Your task to perform on an android device: toggle data saver in the chrome app Image 0: 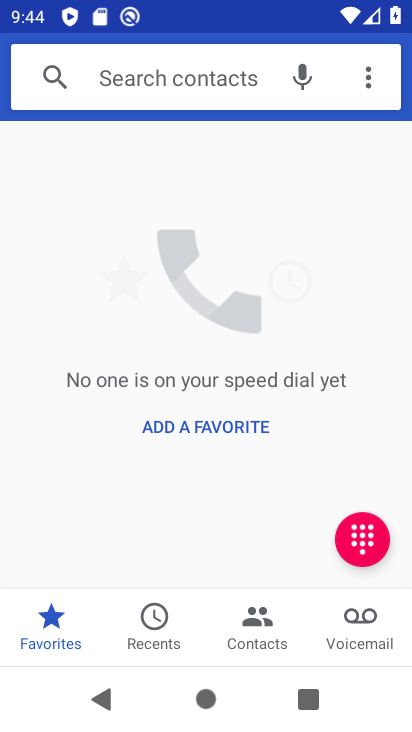
Step 0: press home button
Your task to perform on an android device: toggle data saver in the chrome app Image 1: 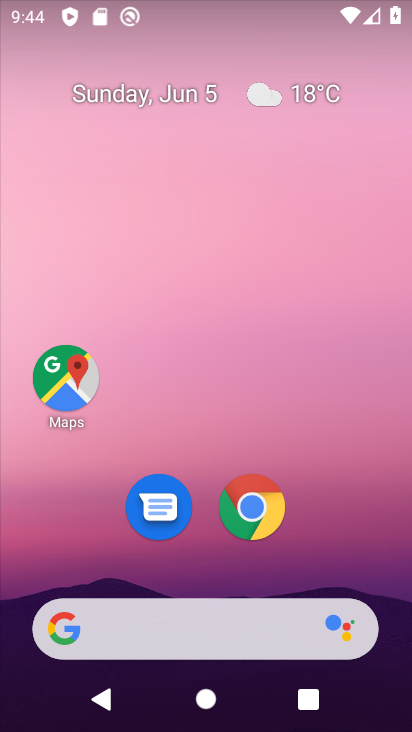
Step 1: click (251, 486)
Your task to perform on an android device: toggle data saver in the chrome app Image 2: 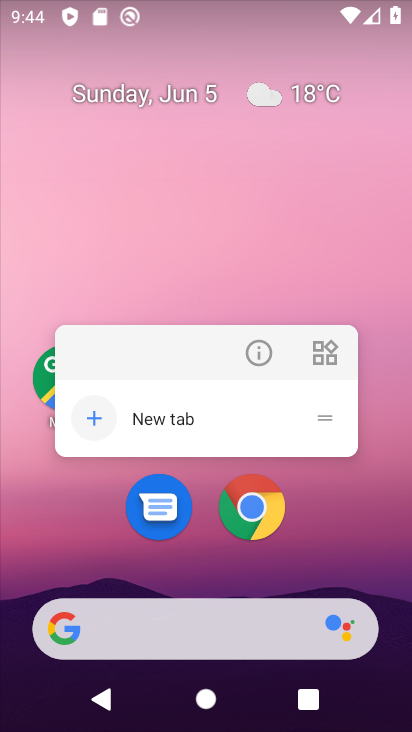
Step 2: click (255, 510)
Your task to perform on an android device: toggle data saver in the chrome app Image 3: 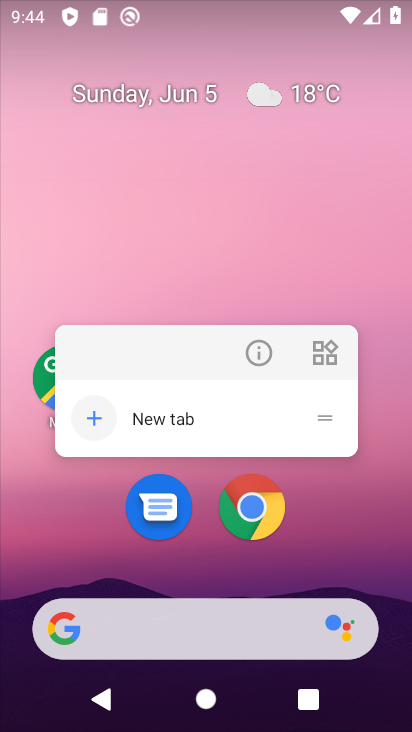
Step 3: click (253, 507)
Your task to perform on an android device: toggle data saver in the chrome app Image 4: 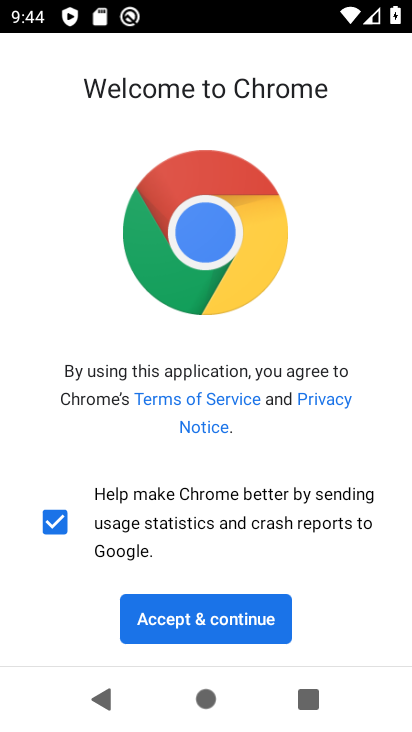
Step 4: click (167, 622)
Your task to perform on an android device: toggle data saver in the chrome app Image 5: 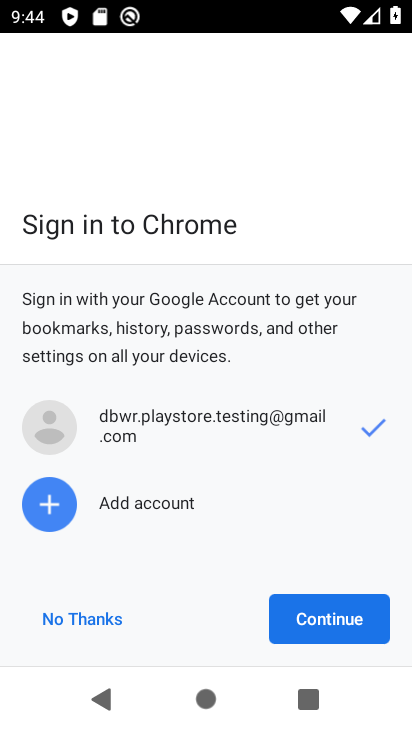
Step 5: click (331, 626)
Your task to perform on an android device: toggle data saver in the chrome app Image 6: 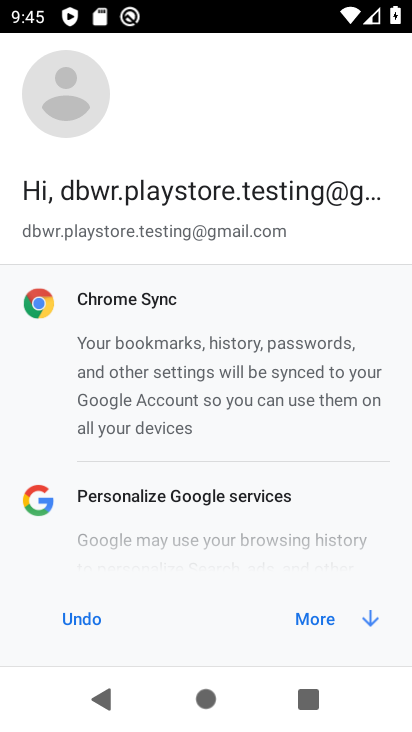
Step 6: click (325, 609)
Your task to perform on an android device: toggle data saver in the chrome app Image 7: 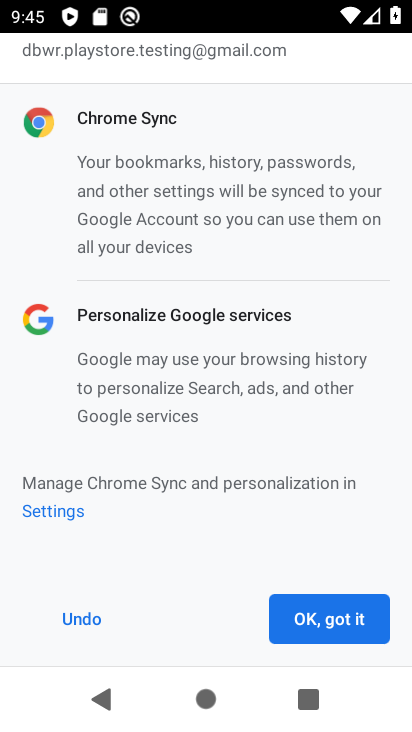
Step 7: click (325, 613)
Your task to perform on an android device: toggle data saver in the chrome app Image 8: 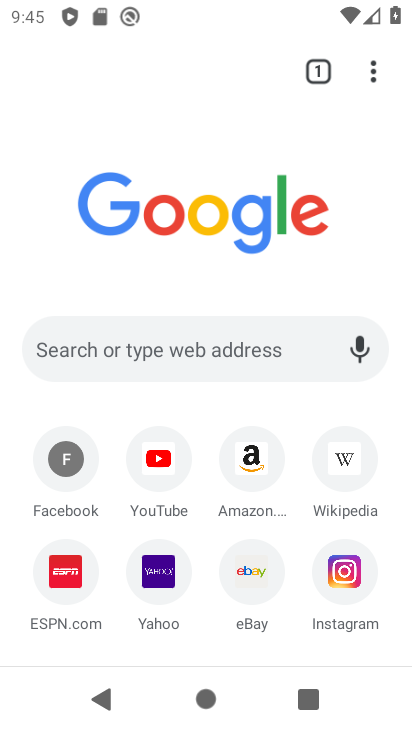
Step 8: click (379, 73)
Your task to perform on an android device: toggle data saver in the chrome app Image 9: 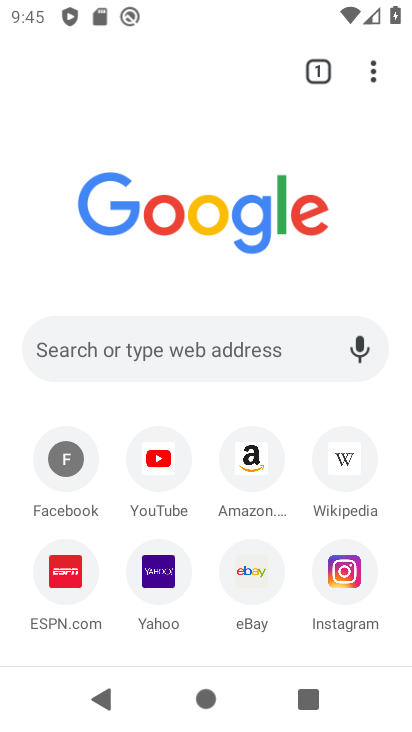
Step 9: click (367, 74)
Your task to perform on an android device: toggle data saver in the chrome app Image 10: 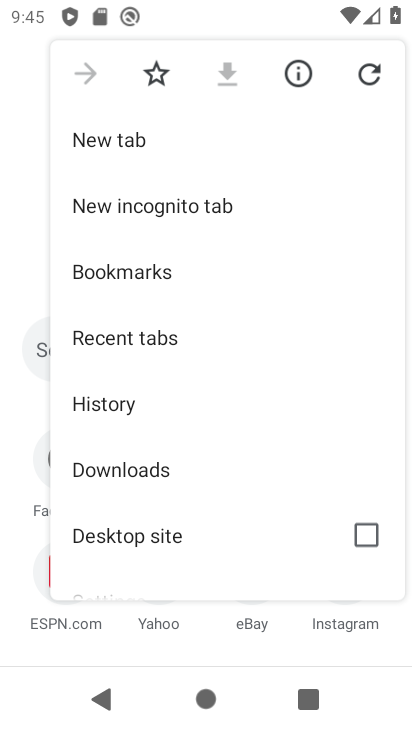
Step 10: drag from (138, 518) to (172, 101)
Your task to perform on an android device: toggle data saver in the chrome app Image 11: 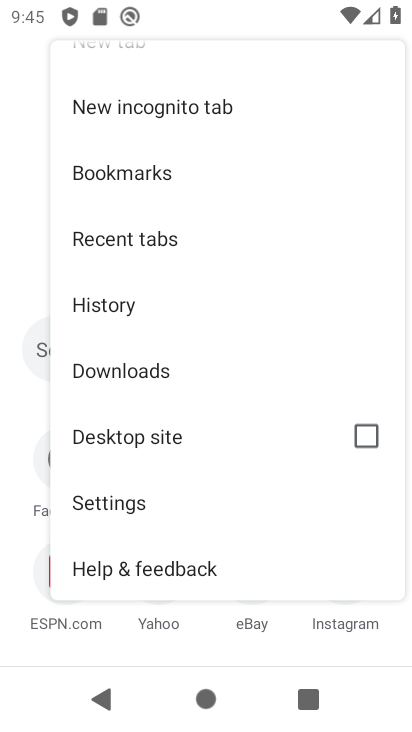
Step 11: click (124, 512)
Your task to perform on an android device: toggle data saver in the chrome app Image 12: 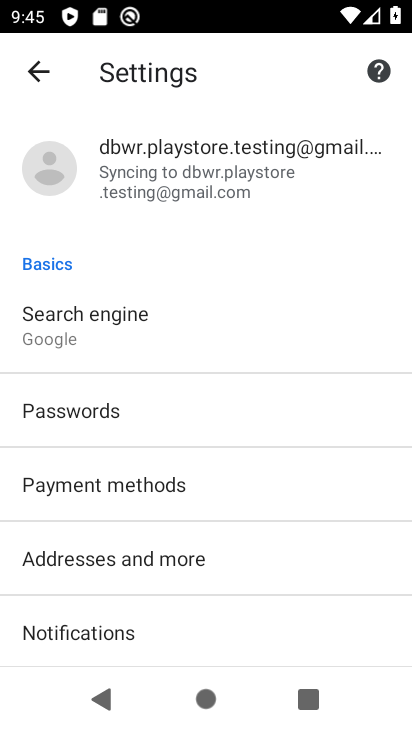
Step 12: drag from (143, 537) to (221, 88)
Your task to perform on an android device: toggle data saver in the chrome app Image 13: 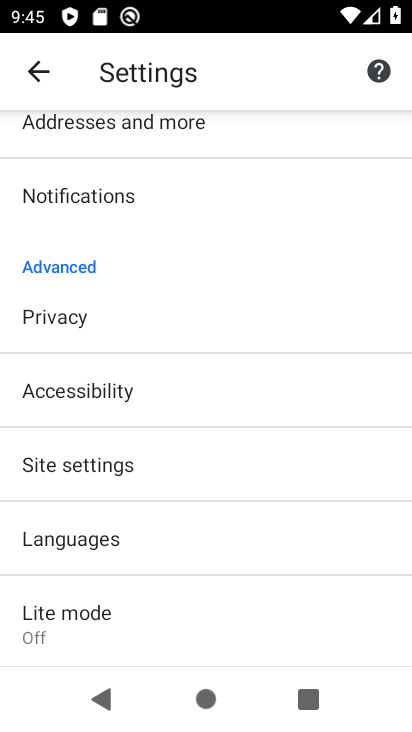
Step 13: drag from (95, 621) to (114, 492)
Your task to perform on an android device: toggle data saver in the chrome app Image 14: 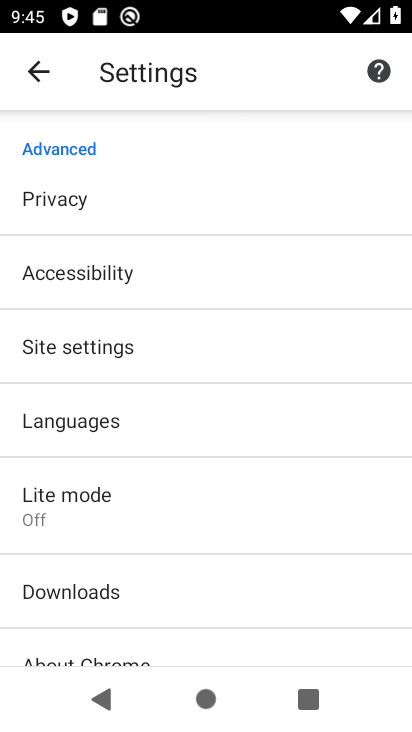
Step 14: click (95, 518)
Your task to perform on an android device: toggle data saver in the chrome app Image 15: 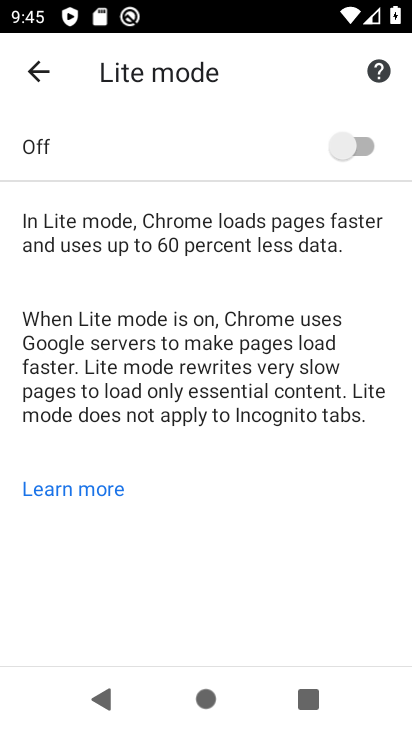
Step 15: click (341, 140)
Your task to perform on an android device: toggle data saver in the chrome app Image 16: 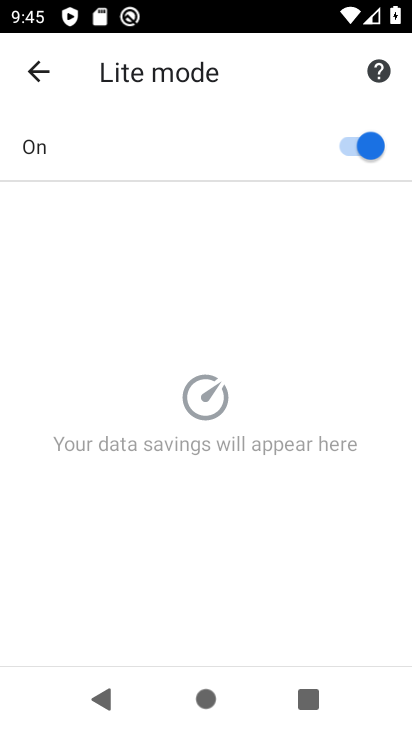
Step 16: task complete